Your task to perform on an android device: Go to accessibility settings Image 0: 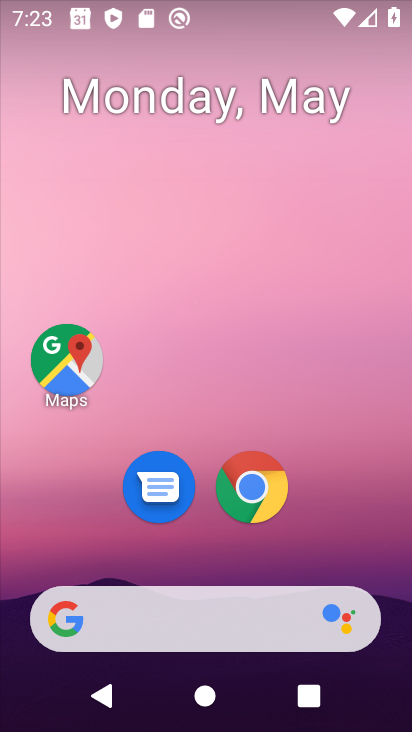
Step 0: drag from (265, 659) to (295, 173)
Your task to perform on an android device: Go to accessibility settings Image 1: 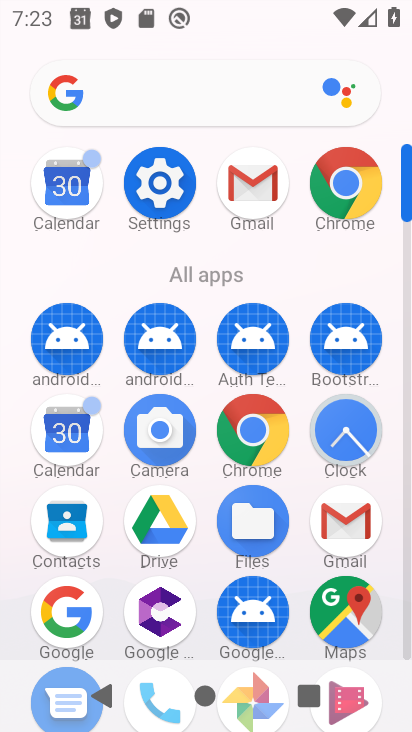
Step 1: click (168, 201)
Your task to perform on an android device: Go to accessibility settings Image 2: 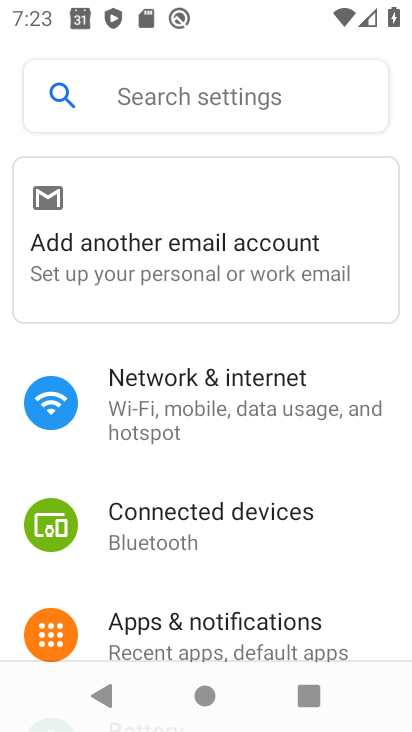
Step 2: click (163, 100)
Your task to perform on an android device: Go to accessibility settings Image 3: 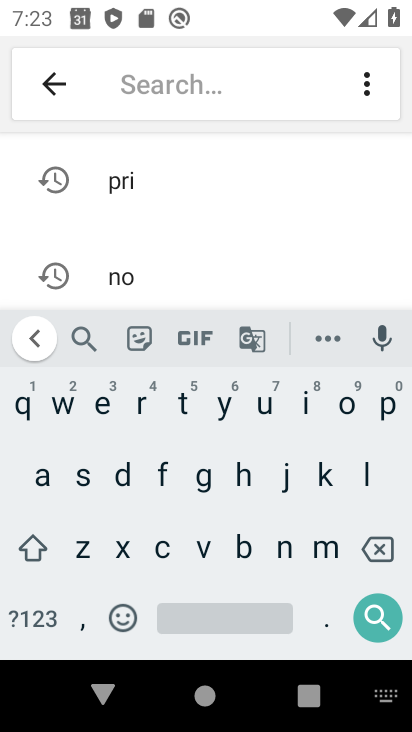
Step 3: click (39, 470)
Your task to perform on an android device: Go to accessibility settings Image 4: 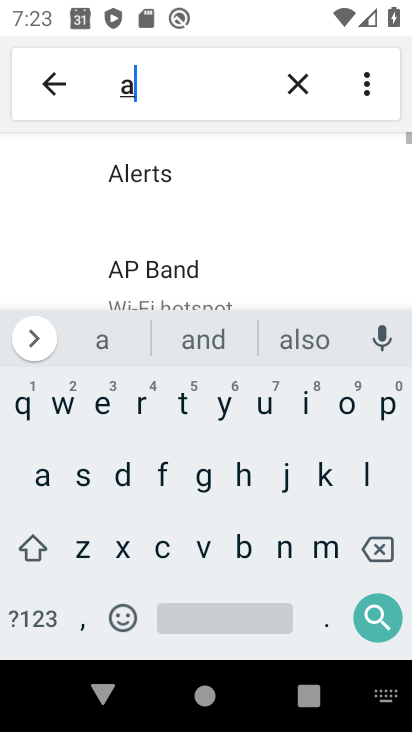
Step 4: click (163, 547)
Your task to perform on an android device: Go to accessibility settings Image 5: 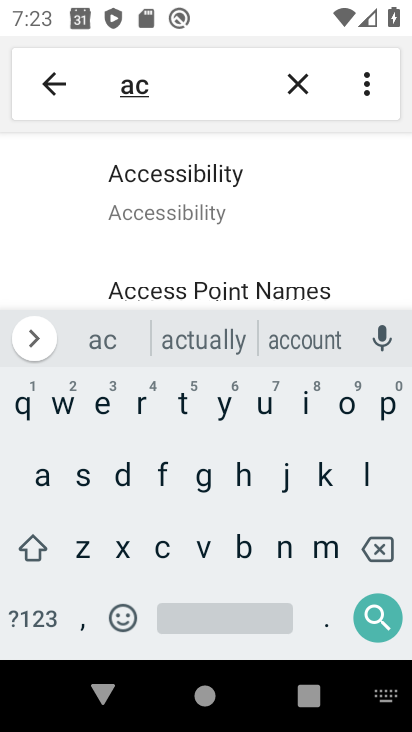
Step 5: click (191, 186)
Your task to perform on an android device: Go to accessibility settings Image 6: 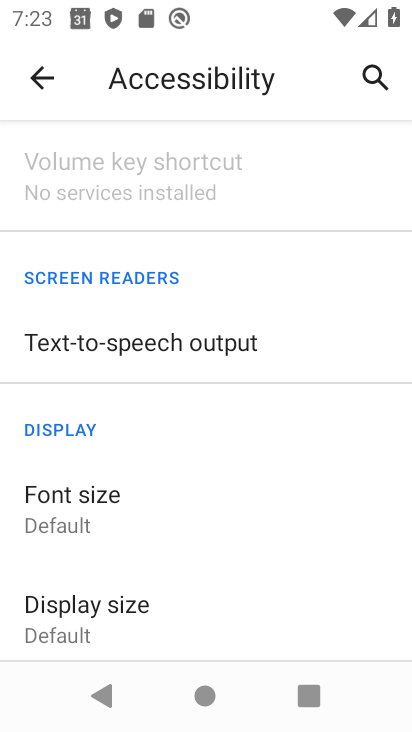
Step 6: task complete